Your task to perform on an android device: delete the emails in spam in the gmail app Image 0: 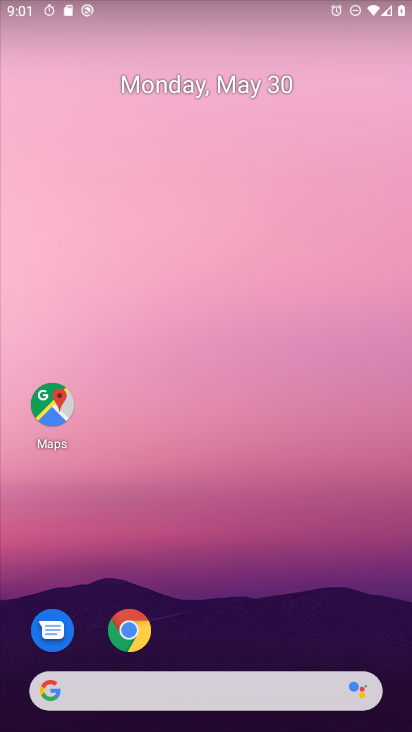
Step 0: drag from (308, 631) to (199, 7)
Your task to perform on an android device: delete the emails in spam in the gmail app Image 1: 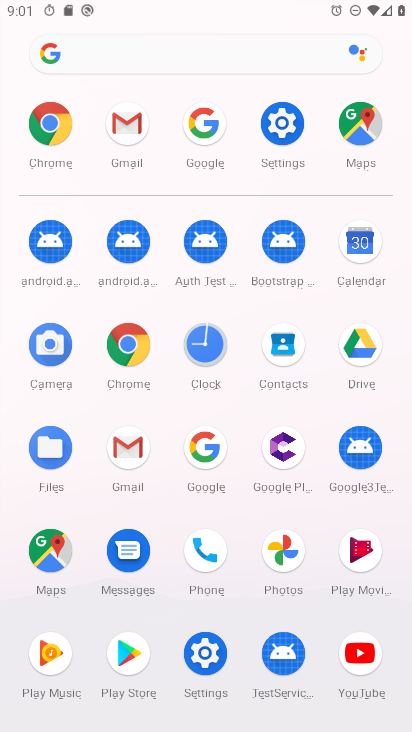
Step 1: click (132, 455)
Your task to perform on an android device: delete the emails in spam in the gmail app Image 2: 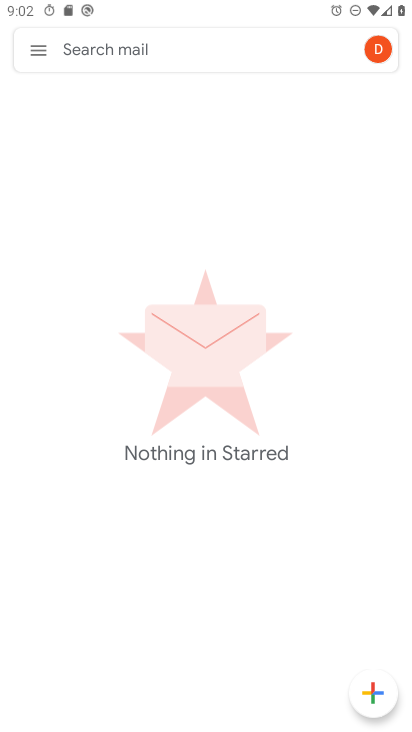
Step 2: click (31, 47)
Your task to perform on an android device: delete the emails in spam in the gmail app Image 3: 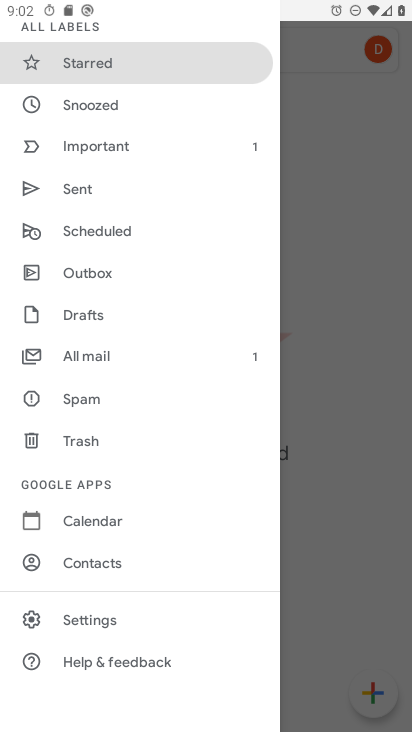
Step 3: click (118, 393)
Your task to perform on an android device: delete the emails in spam in the gmail app Image 4: 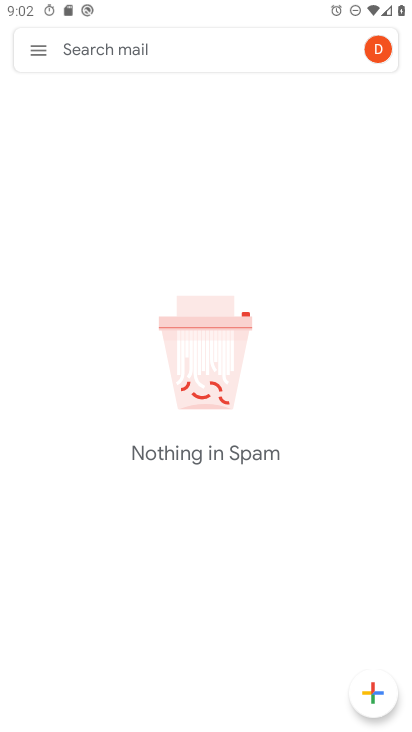
Step 4: task complete